Your task to perform on an android device: Turn on the flashlight Image 0: 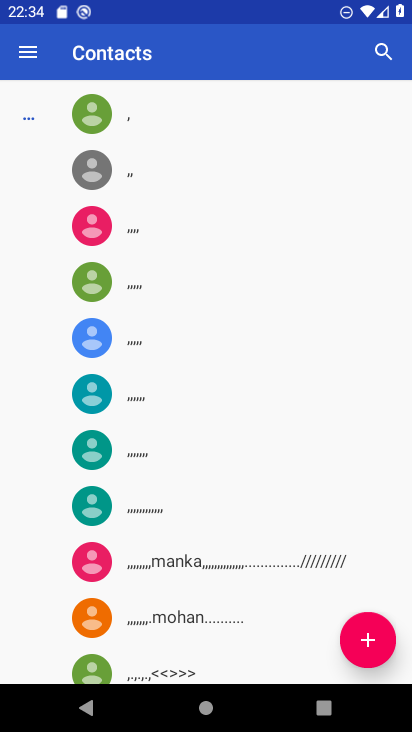
Step 0: drag from (234, 19) to (333, 648)
Your task to perform on an android device: Turn on the flashlight Image 1: 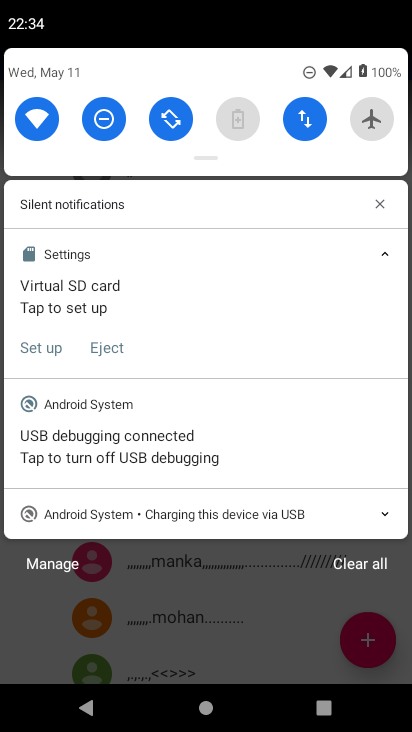
Step 1: task complete